Your task to perform on an android device: add a label to a message in the gmail app Image 0: 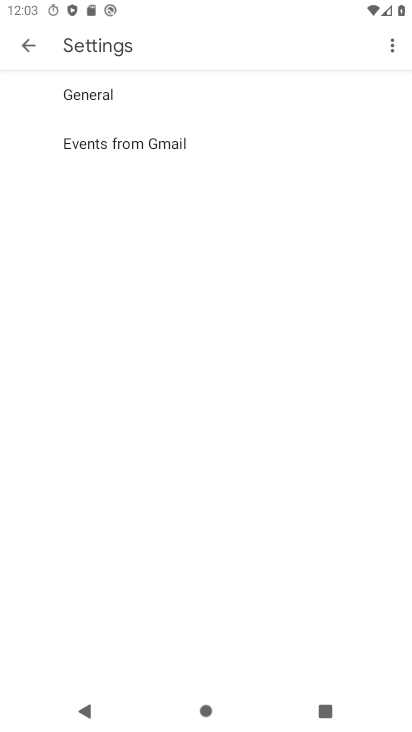
Step 0: press home button
Your task to perform on an android device: add a label to a message in the gmail app Image 1: 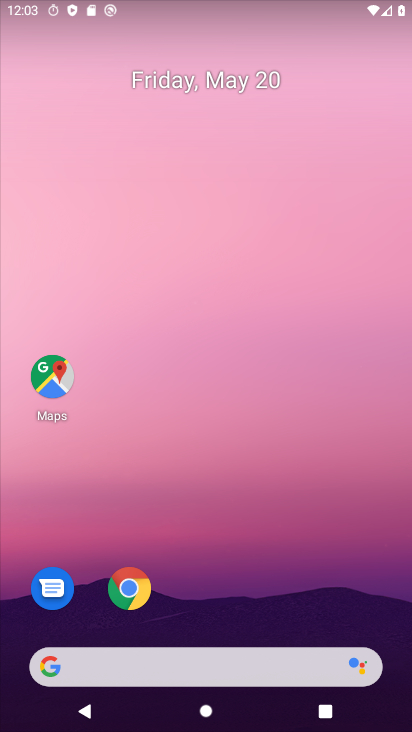
Step 1: drag from (266, 504) to (287, 127)
Your task to perform on an android device: add a label to a message in the gmail app Image 2: 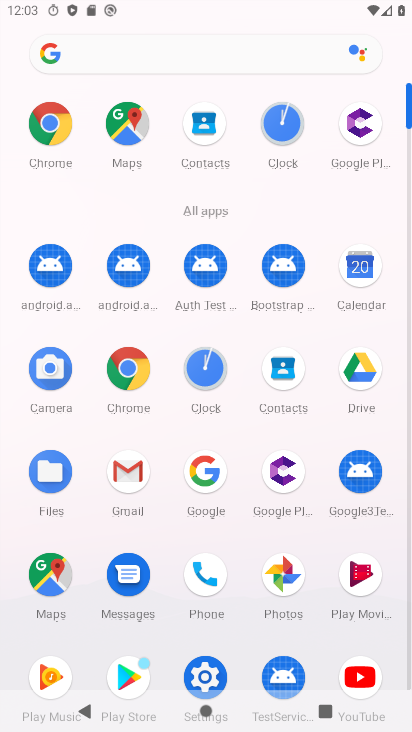
Step 2: click (138, 469)
Your task to perform on an android device: add a label to a message in the gmail app Image 3: 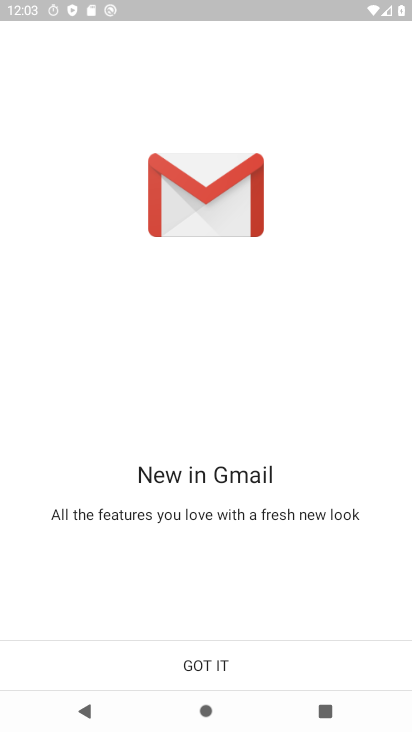
Step 3: click (184, 668)
Your task to perform on an android device: add a label to a message in the gmail app Image 4: 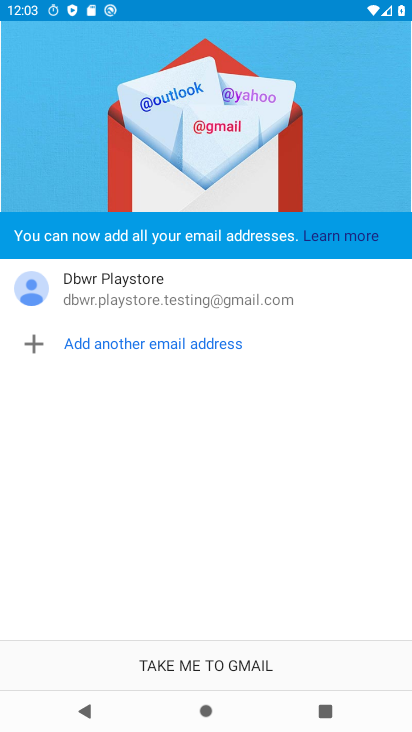
Step 4: click (222, 659)
Your task to perform on an android device: add a label to a message in the gmail app Image 5: 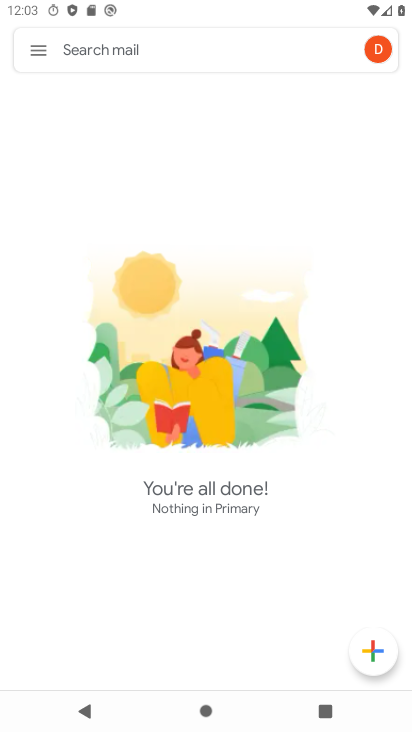
Step 5: click (38, 54)
Your task to perform on an android device: add a label to a message in the gmail app Image 6: 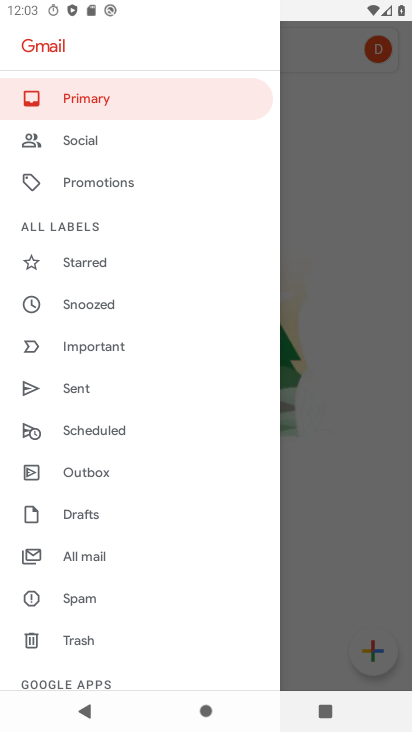
Step 6: click (132, 559)
Your task to perform on an android device: add a label to a message in the gmail app Image 7: 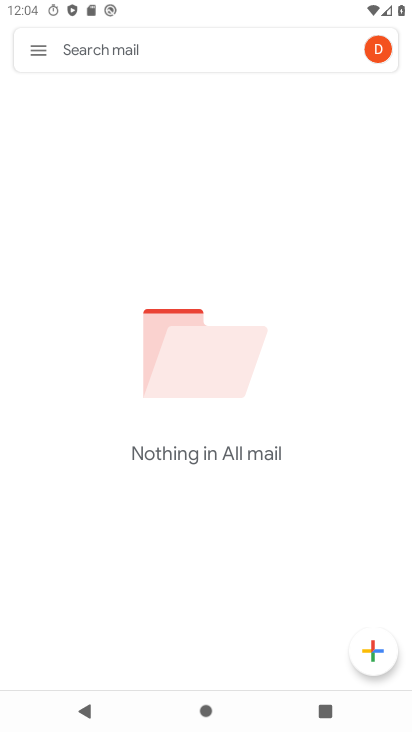
Step 7: task complete